Your task to perform on an android device: Open Android settings Image 0: 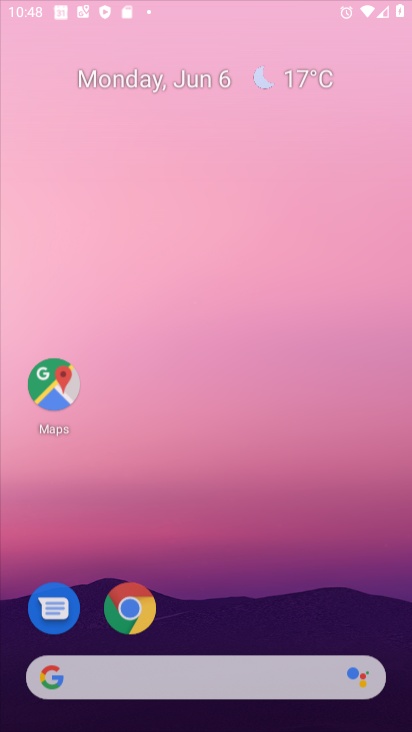
Step 0: press home button
Your task to perform on an android device: Open Android settings Image 1: 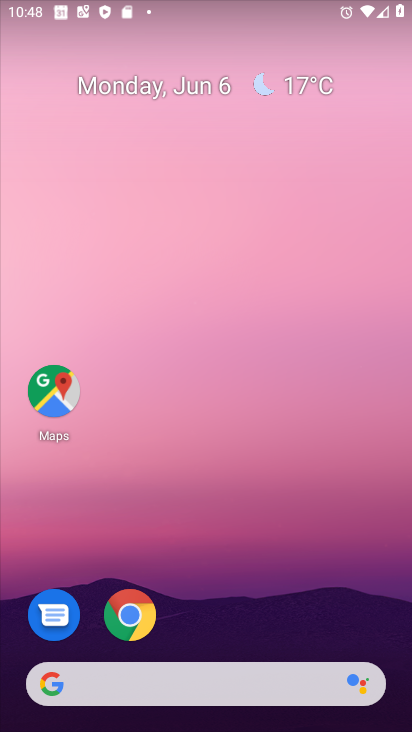
Step 1: press home button
Your task to perform on an android device: Open Android settings Image 2: 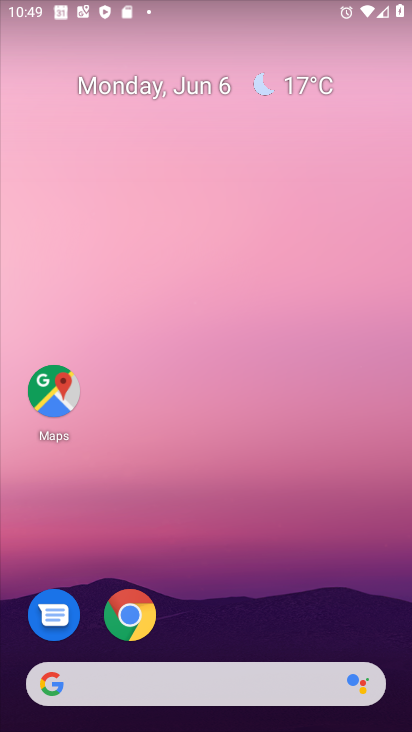
Step 2: drag from (221, 633) to (223, 68)
Your task to perform on an android device: Open Android settings Image 3: 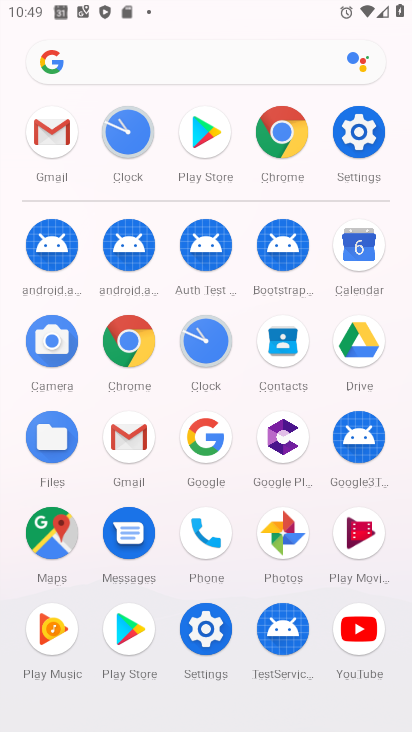
Step 3: click (203, 622)
Your task to perform on an android device: Open Android settings Image 4: 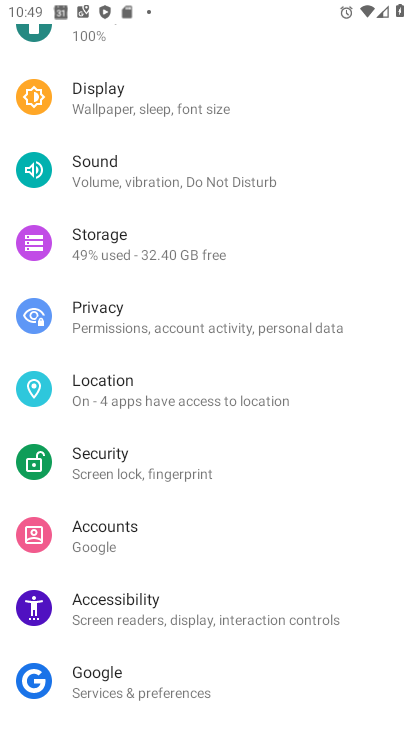
Step 4: drag from (237, 682) to (231, 71)
Your task to perform on an android device: Open Android settings Image 5: 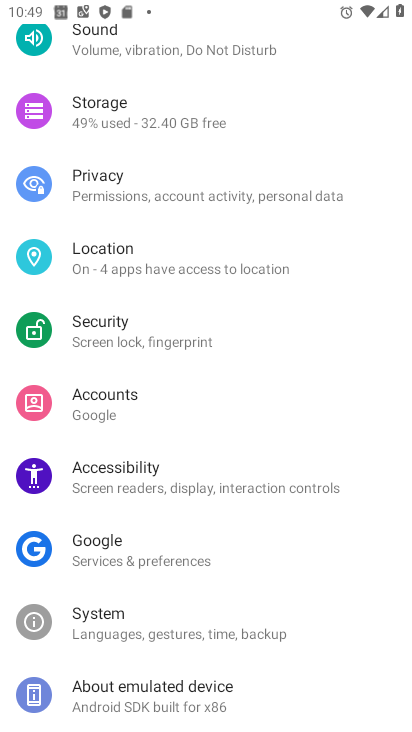
Step 5: click (254, 696)
Your task to perform on an android device: Open Android settings Image 6: 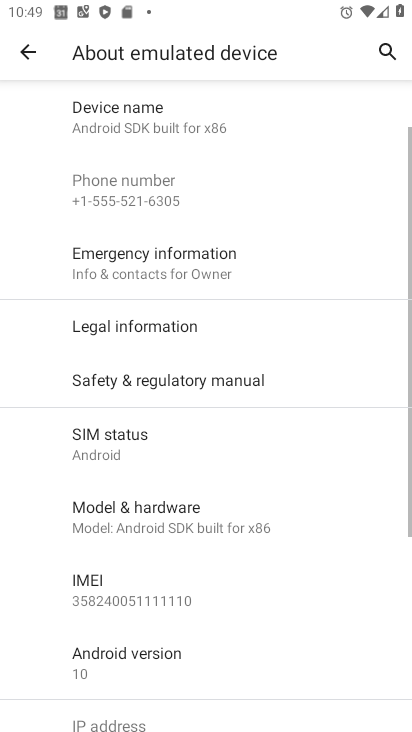
Step 6: click (168, 668)
Your task to perform on an android device: Open Android settings Image 7: 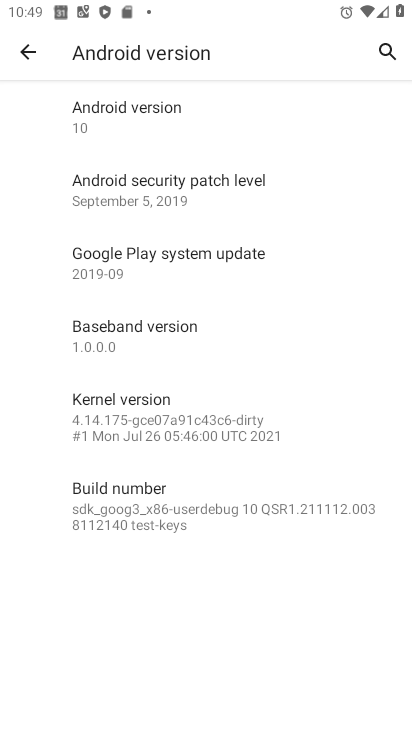
Step 7: task complete